Your task to perform on an android device: Search for pizza restaurants on Maps Image 0: 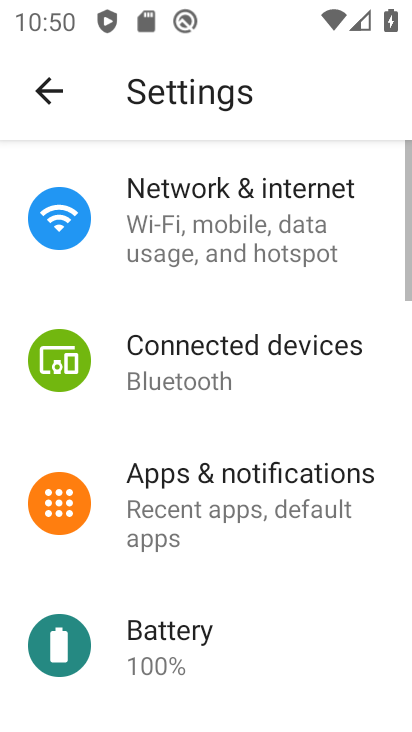
Step 0: press home button
Your task to perform on an android device: Search for pizza restaurants on Maps Image 1: 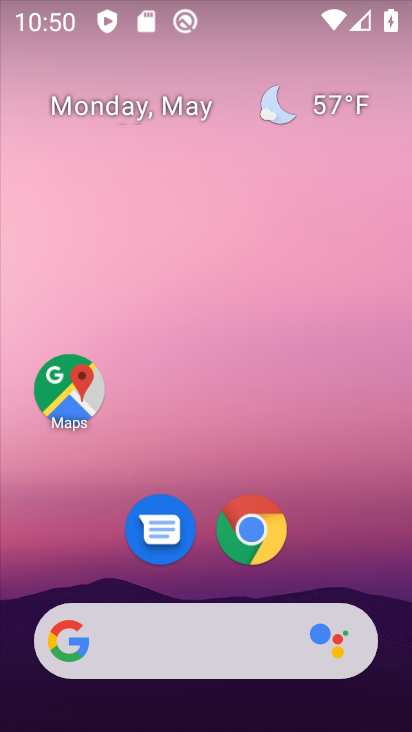
Step 1: drag from (167, 728) to (155, 138)
Your task to perform on an android device: Search for pizza restaurants on Maps Image 2: 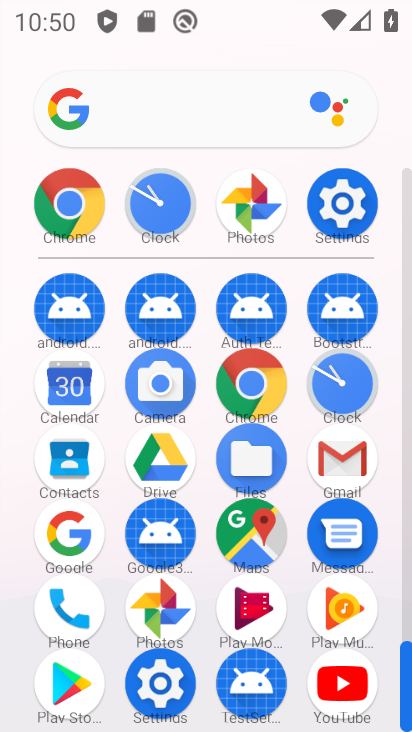
Step 2: click (253, 529)
Your task to perform on an android device: Search for pizza restaurants on Maps Image 3: 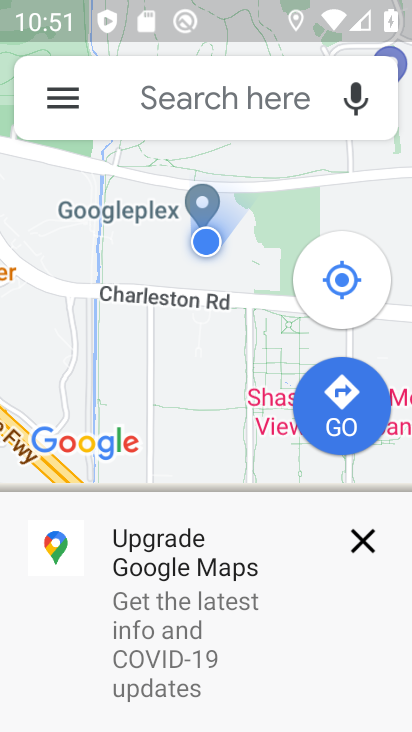
Step 3: click (200, 95)
Your task to perform on an android device: Search for pizza restaurants on Maps Image 4: 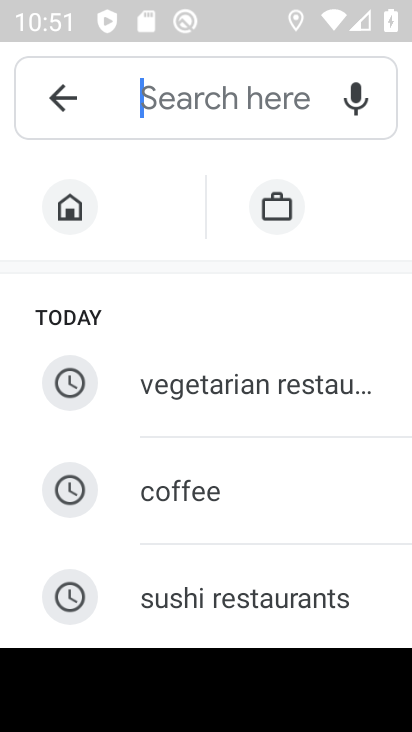
Step 4: type "Pizza restaurants"
Your task to perform on an android device: Search for pizza restaurants on Maps Image 5: 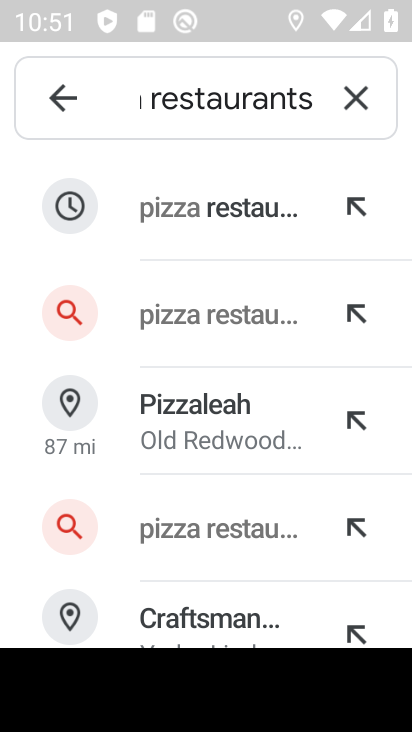
Step 5: click (216, 213)
Your task to perform on an android device: Search for pizza restaurants on Maps Image 6: 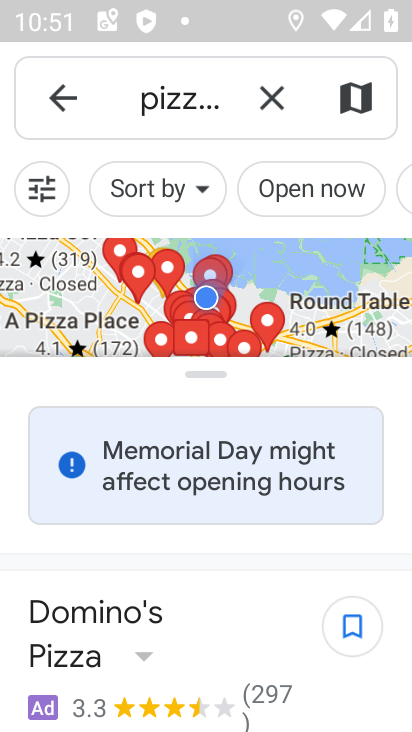
Step 6: task complete